Your task to perform on an android device: see tabs open on other devices in the chrome app Image 0: 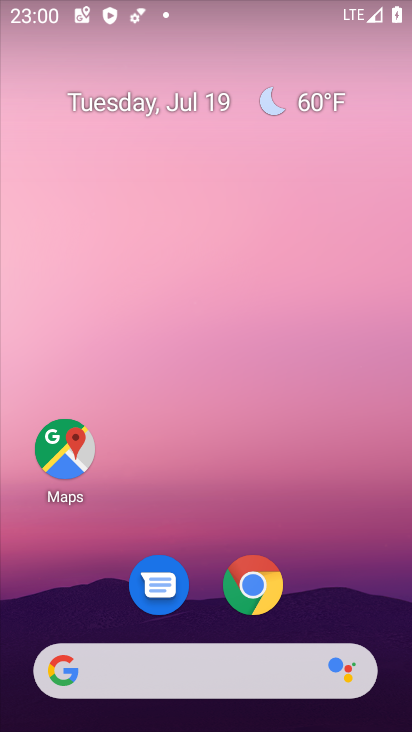
Step 0: click (263, 582)
Your task to perform on an android device: see tabs open on other devices in the chrome app Image 1: 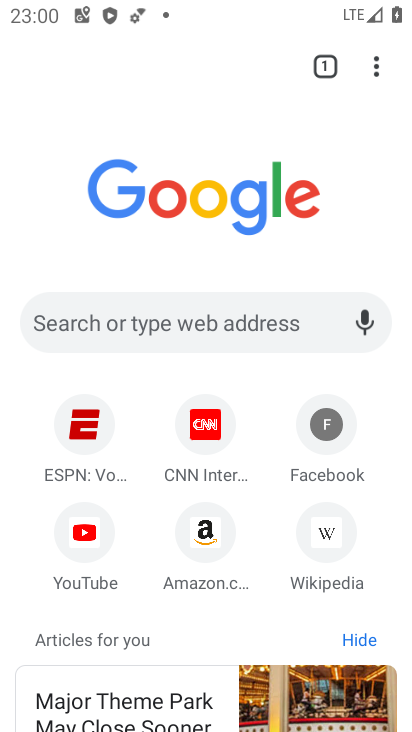
Step 1: click (377, 73)
Your task to perform on an android device: see tabs open on other devices in the chrome app Image 2: 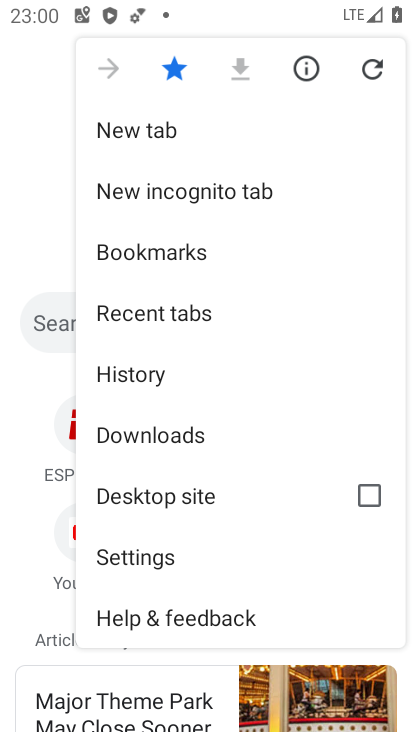
Step 2: click (189, 305)
Your task to perform on an android device: see tabs open on other devices in the chrome app Image 3: 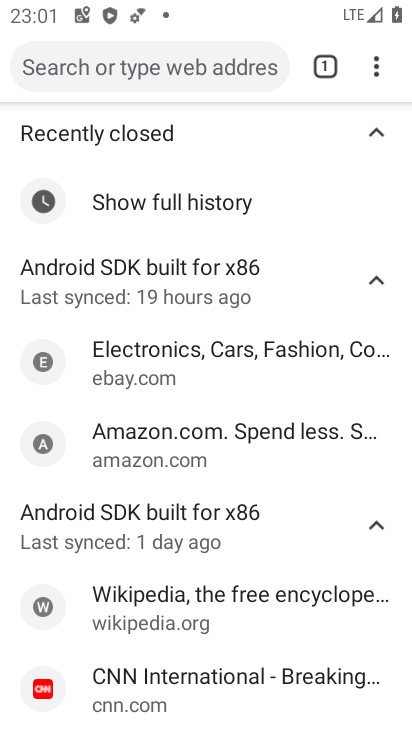
Step 3: task complete